Your task to perform on an android device: Go to display settings Image 0: 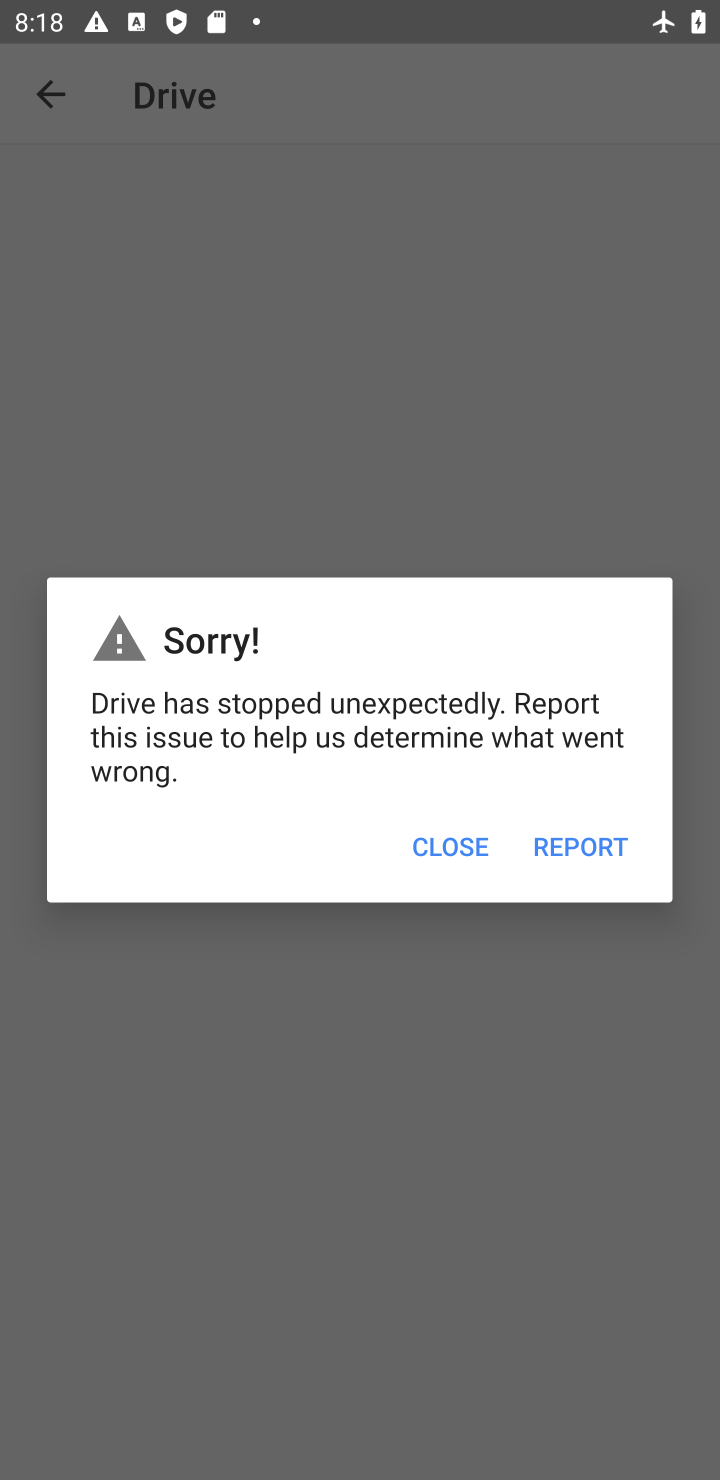
Step 0: press home button
Your task to perform on an android device: Go to display settings Image 1: 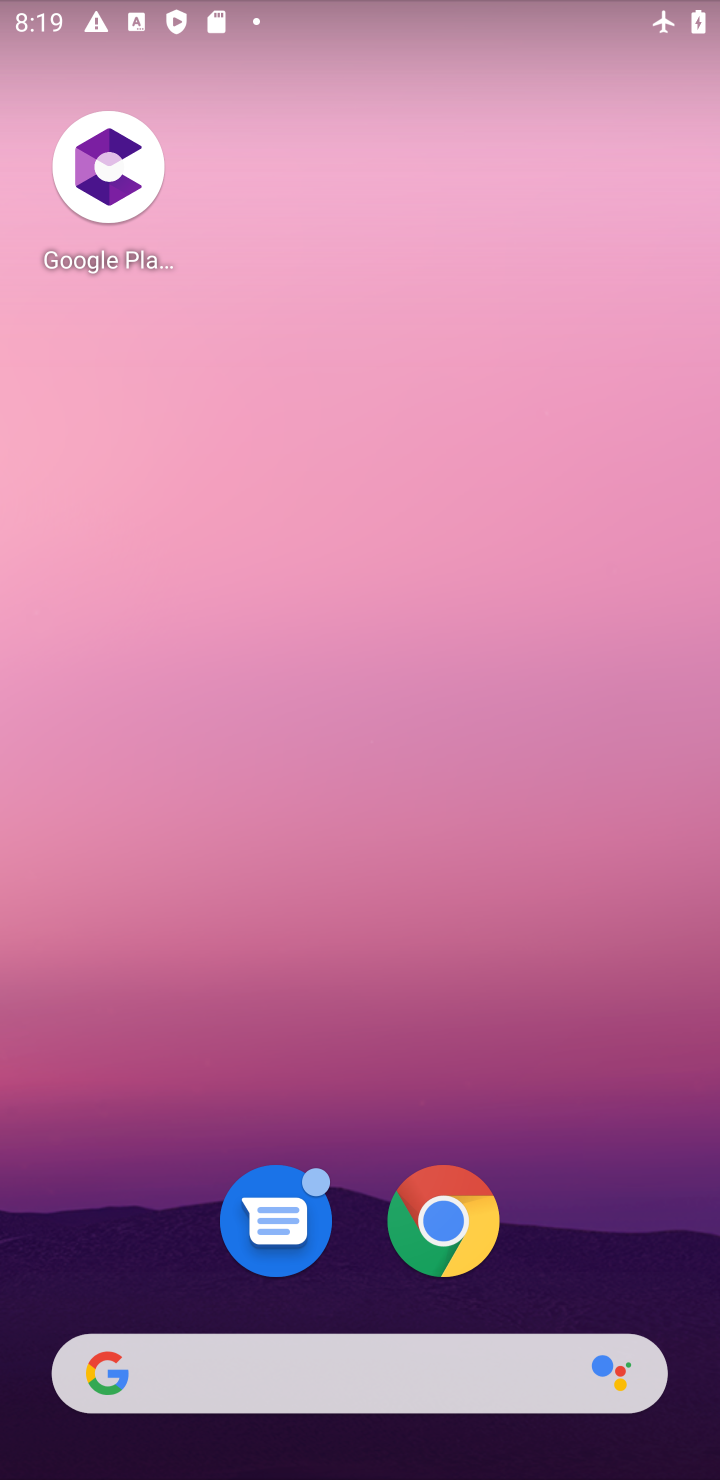
Step 1: drag from (345, 1069) to (271, 59)
Your task to perform on an android device: Go to display settings Image 2: 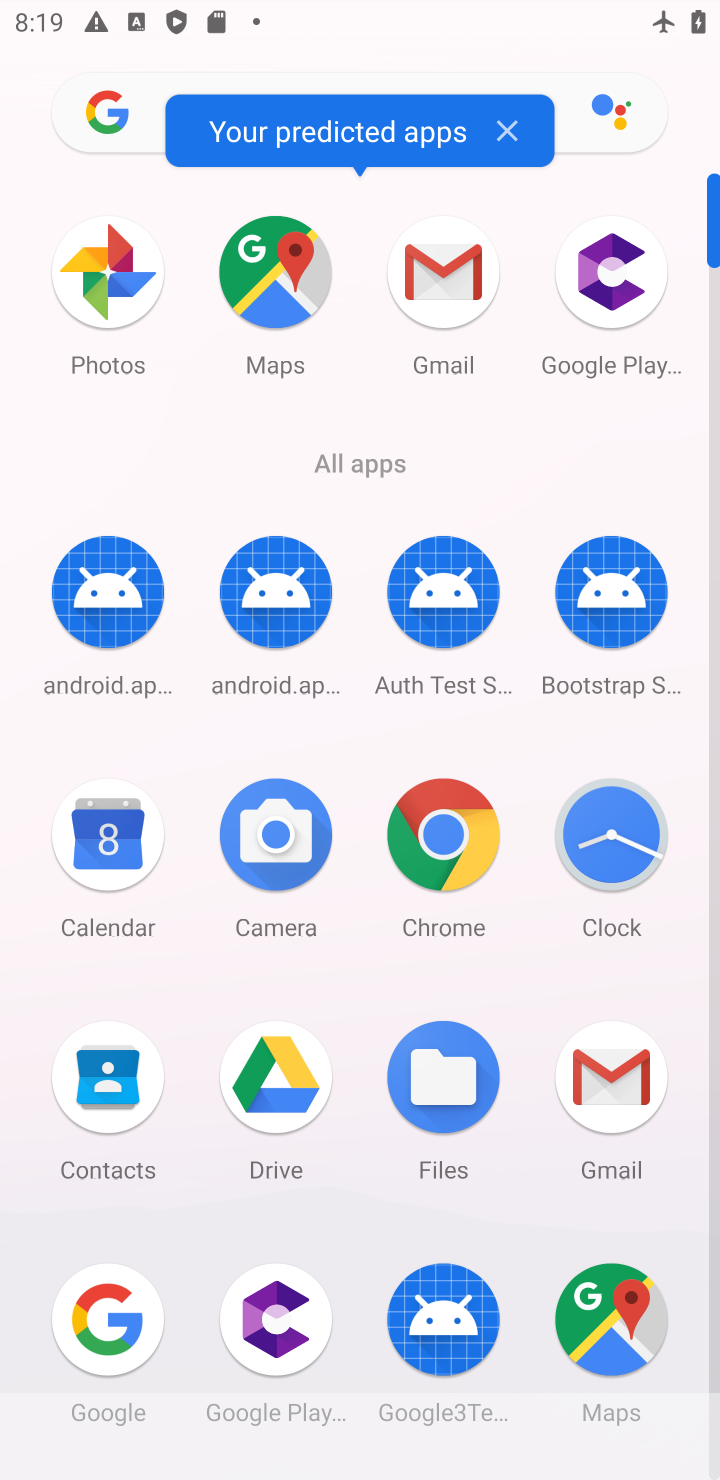
Step 2: drag from (358, 1189) to (122, 456)
Your task to perform on an android device: Go to display settings Image 3: 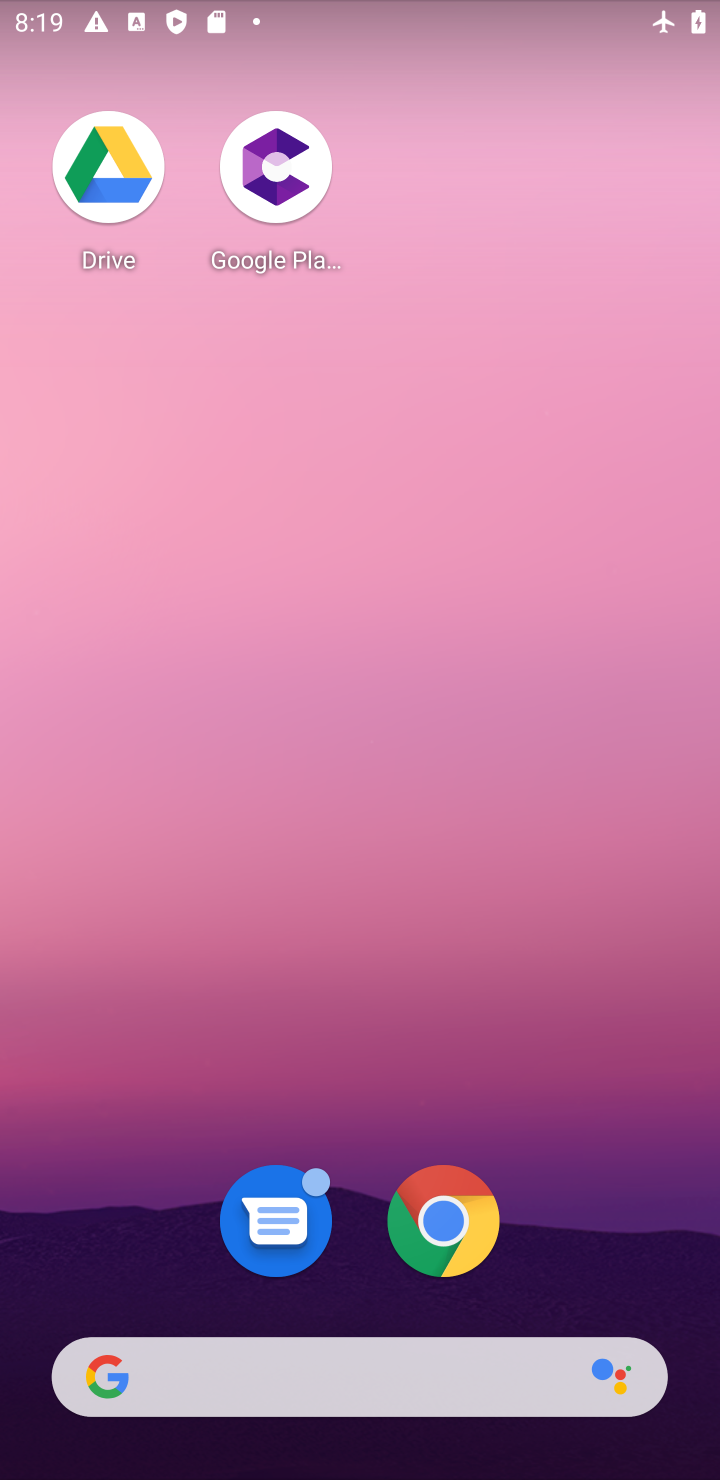
Step 3: drag from (359, 1146) to (174, 127)
Your task to perform on an android device: Go to display settings Image 4: 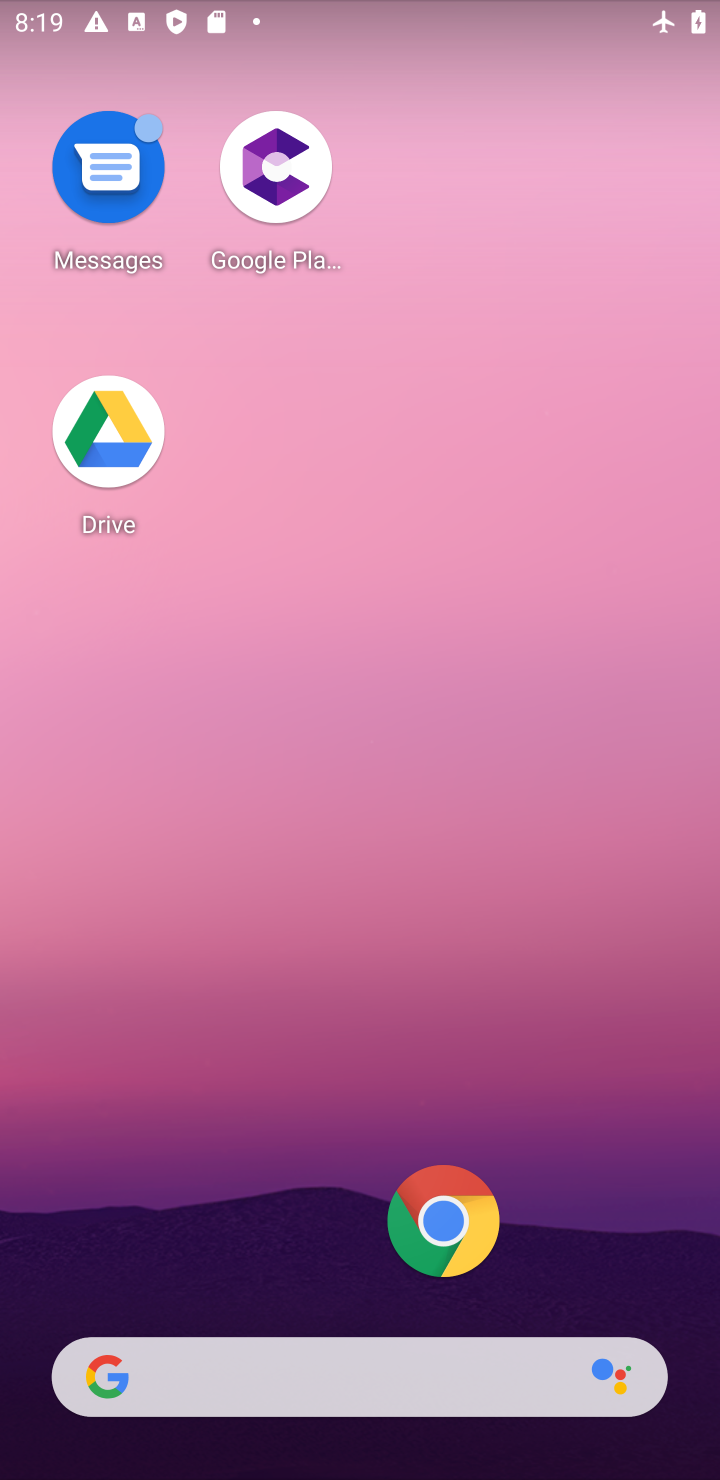
Step 4: drag from (276, 1237) to (408, 110)
Your task to perform on an android device: Go to display settings Image 5: 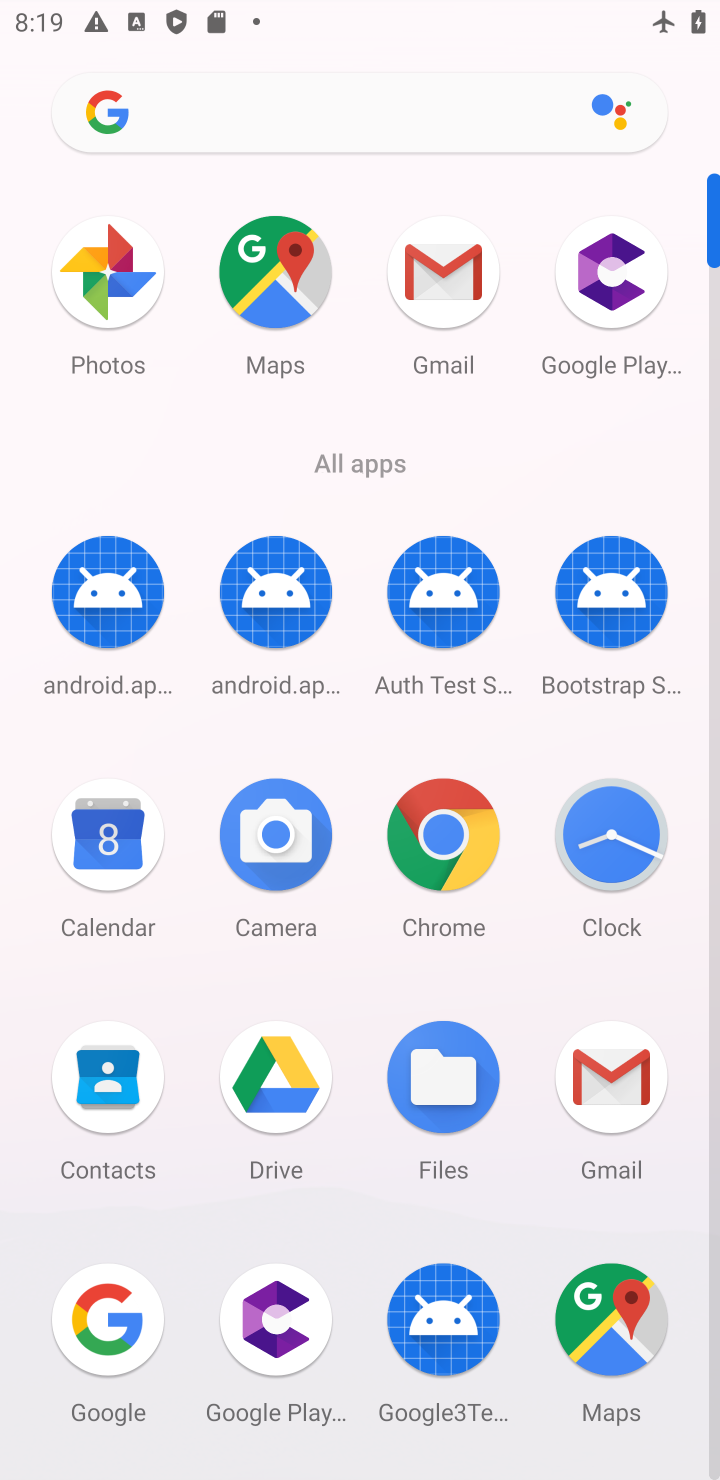
Step 5: drag from (371, 1445) to (297, 554)
Your task to perform on an android device: Go to display settings Image 6: 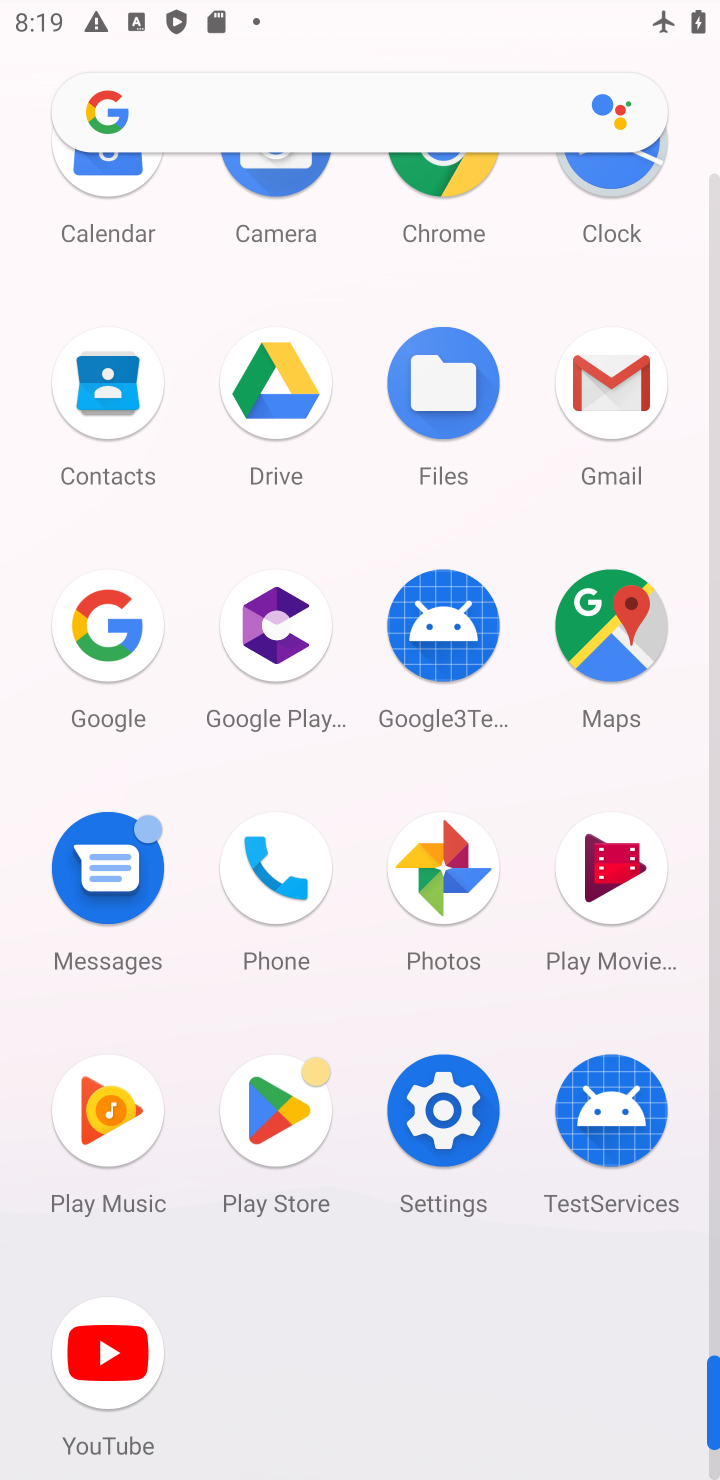
Step 6: click (456, 1084)
Your task to perform on an android device: Go to display settings Image 7: 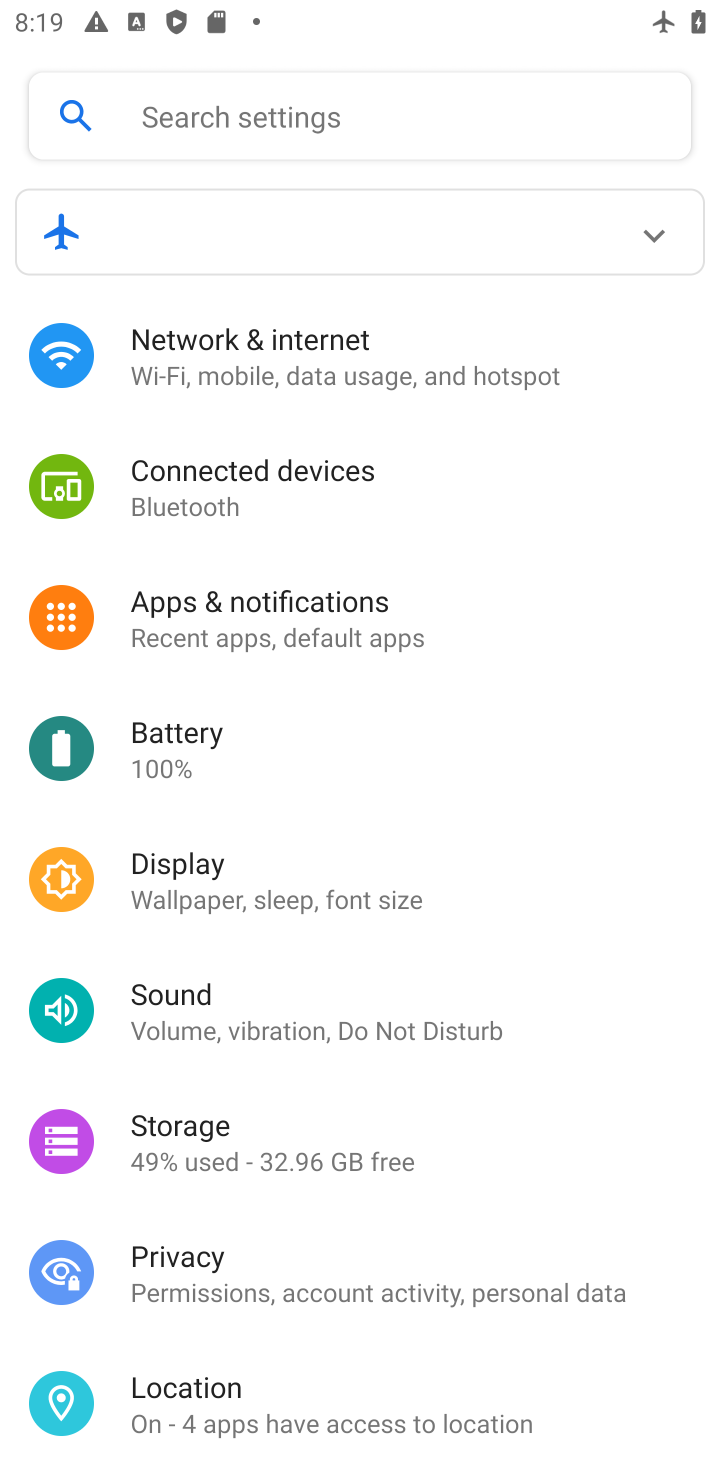
Step 7: click (268, 873)
Your task to perform on an android device: Go to display settings Image 8: 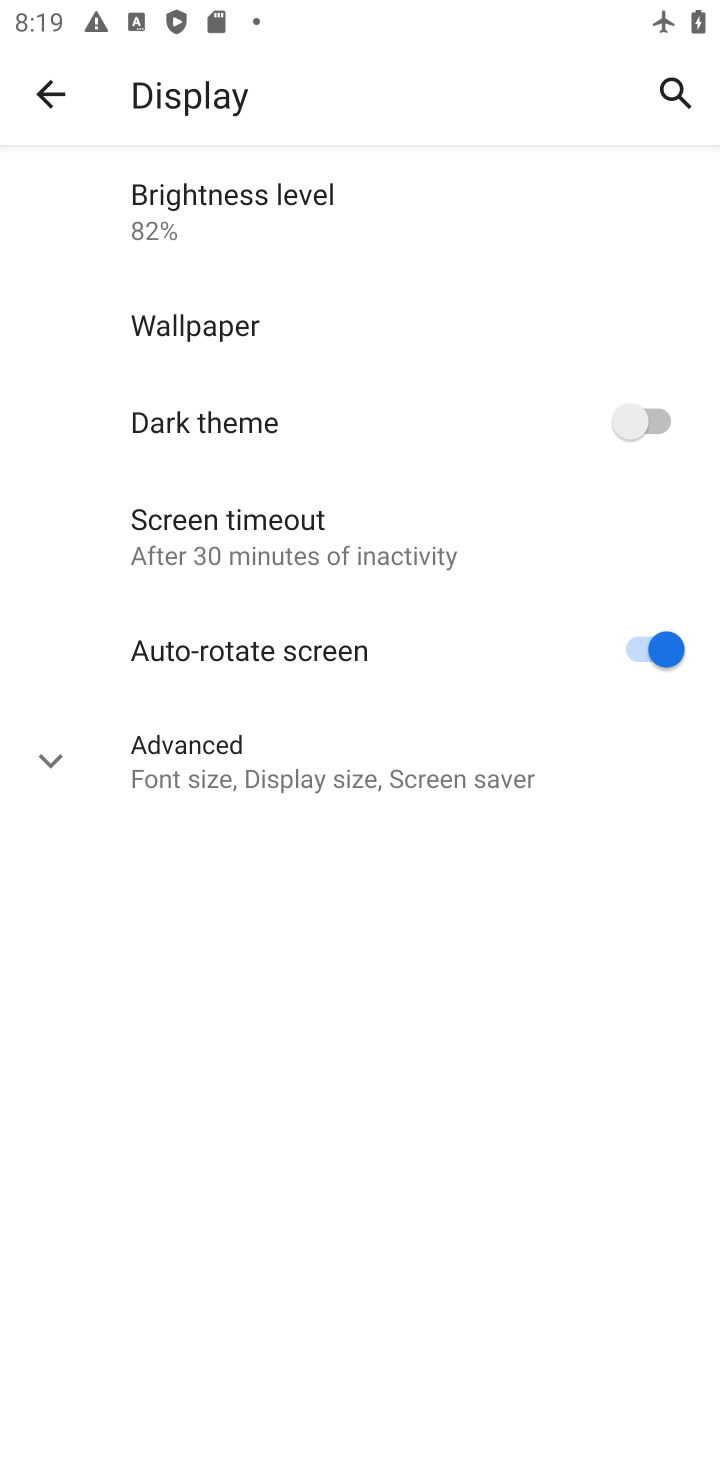
Step 8: task complete